Your task to perform on an android device: check data usage Image 0: 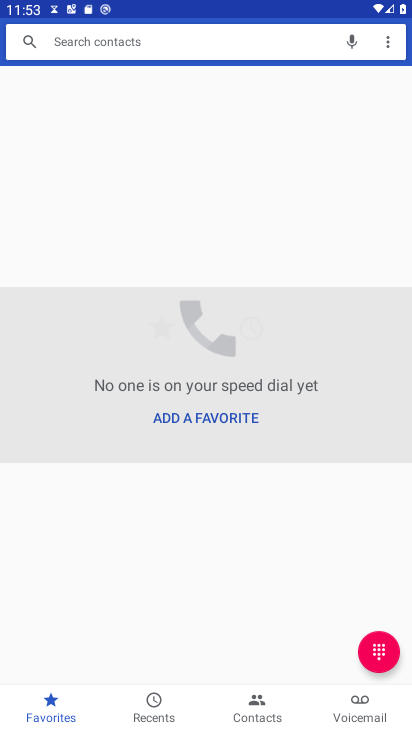
Step 0: press home button
Your task to perform on an android device: check data usage Image 1: 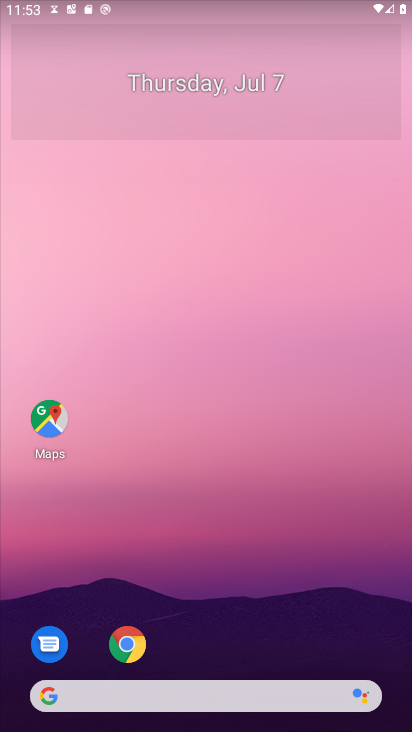
Step 1: drag from (286, 588) to (348, 90)
Your task to perform on an android device: check data usage Image 2: 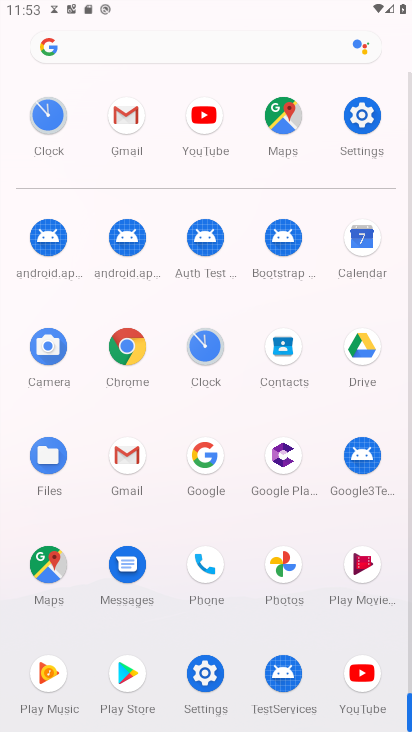
Step 2: click (354, 121)
Your task to perform on an android device: check data usage Image 3: 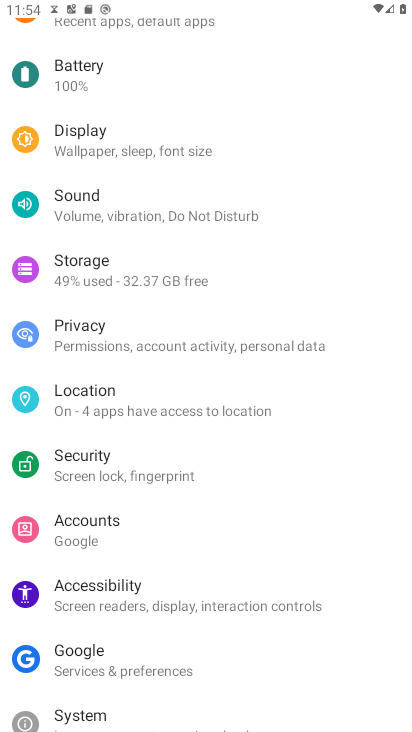
Step 3: drag from (287, 181) to (237, 507)
Your task to perform on an android device: check data usage Image 4: 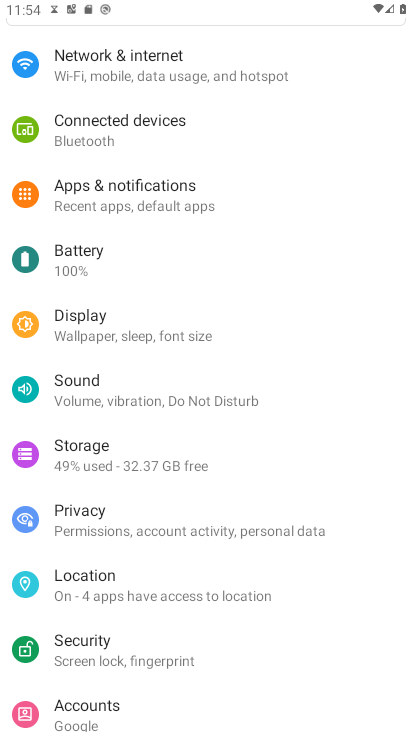
Step 4: click (136, 81)
Your task to perform on an android device: check data usage Image 5: 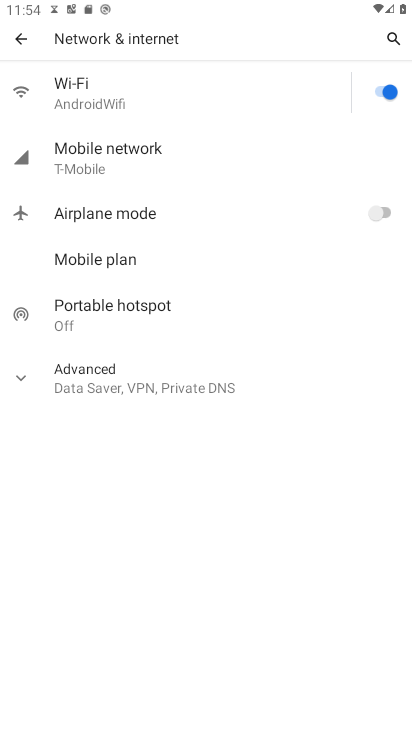
Step 5: click (121, 161)
Your task to perform on an android device: check data usage Image 6: 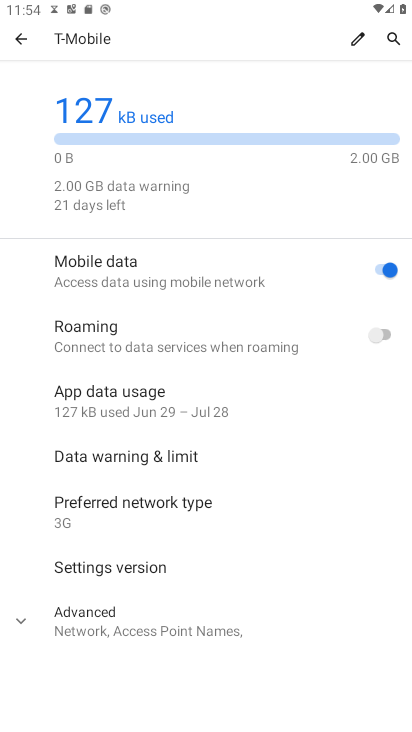
Step 6: task complete